Your task to perform on an android device: toggle location history Image 0: 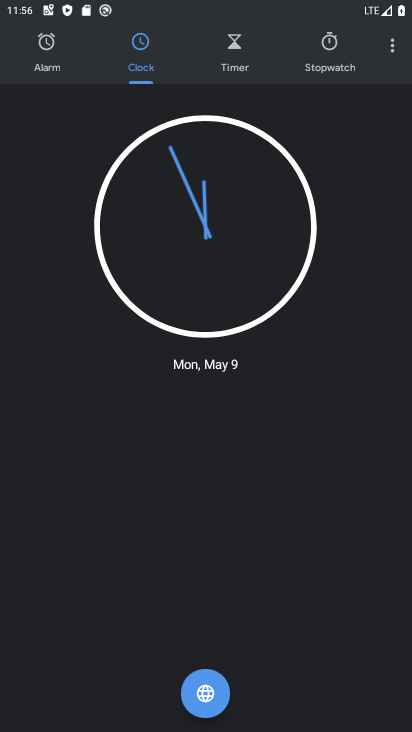
Step 0: press home button
Your task to perform on an android device: toggle location history Image 1: 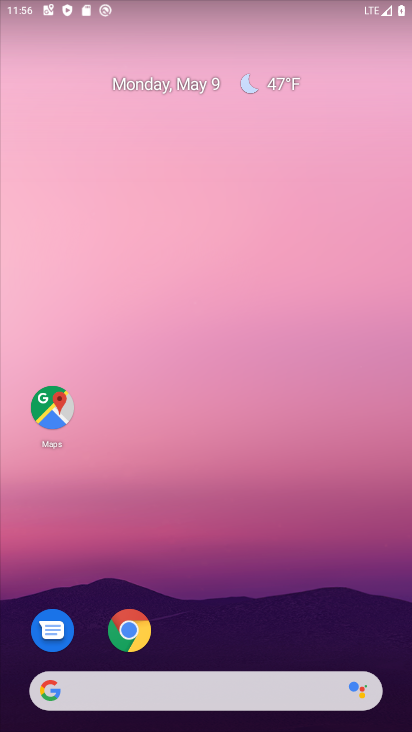
Step 1: drag from (176, 686) to (341, 59)
Your task to perform on an android device: toggle location history Image 2: 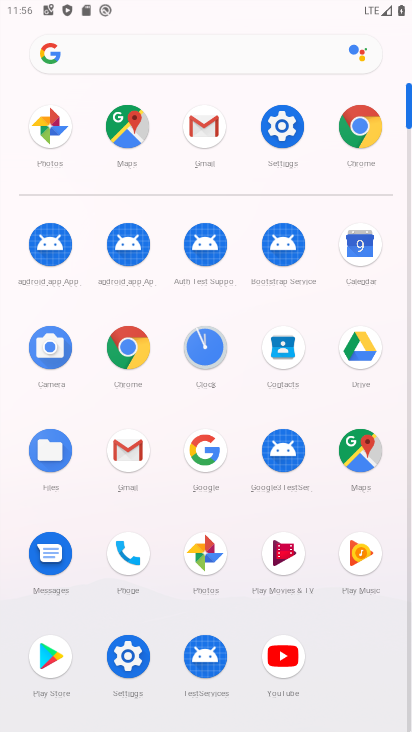
Step 2: click (122, 141)
Your task to perform on an android device: toggle location history Image 3: 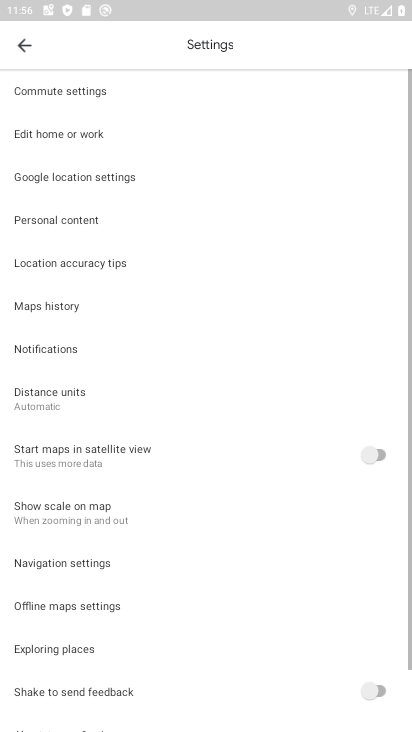
Step 3: click (25, 44)
Your task to perform on an android device: toggle location history Image 4: 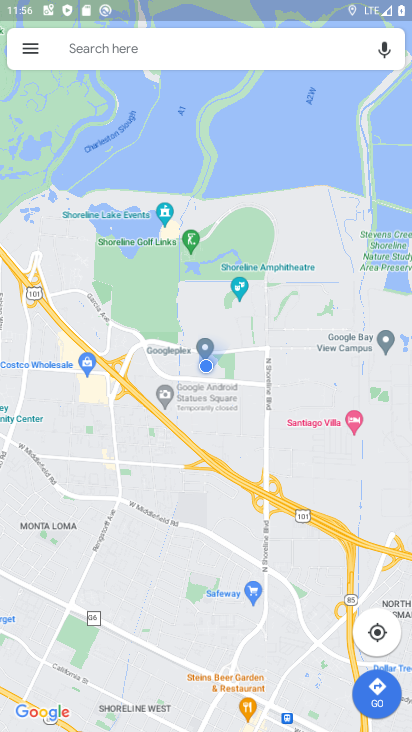
Step 4: click (28, 48)
Your task to perform on an android device: toggle location history Image 5: 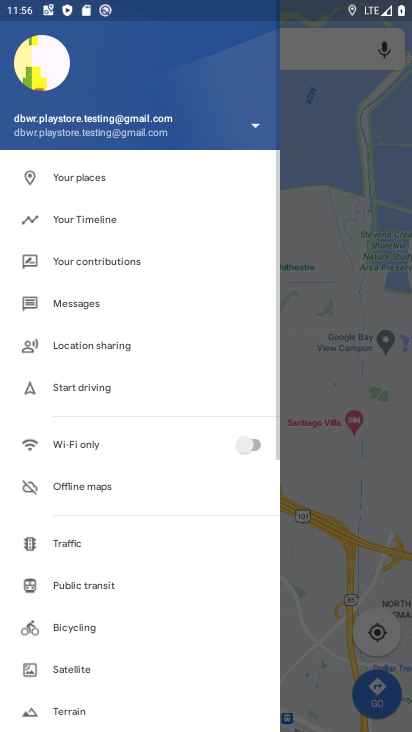
Step 5: click (101, 214)
Your task to perform on an android device: toggle location history Image 6: 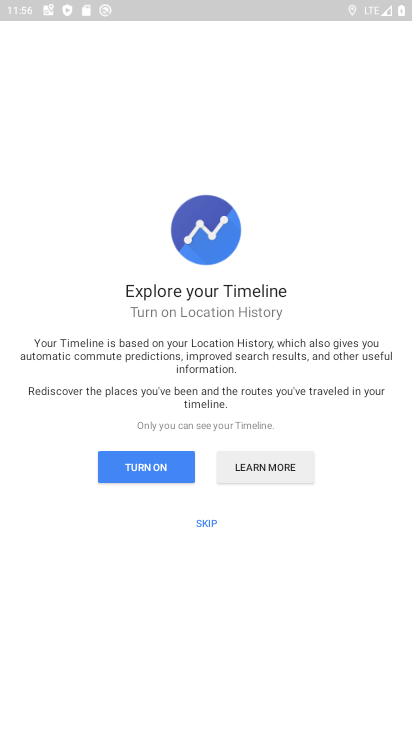
Step 6: click (200, 520)
Your task to perform on an android device: toggle location history Image 7: 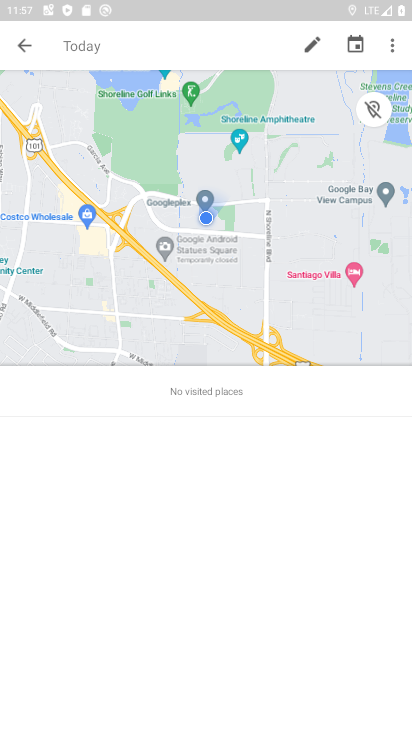
Step 7: click (386, 43)
Your task to perform on an android device: toggle location history Image 8: 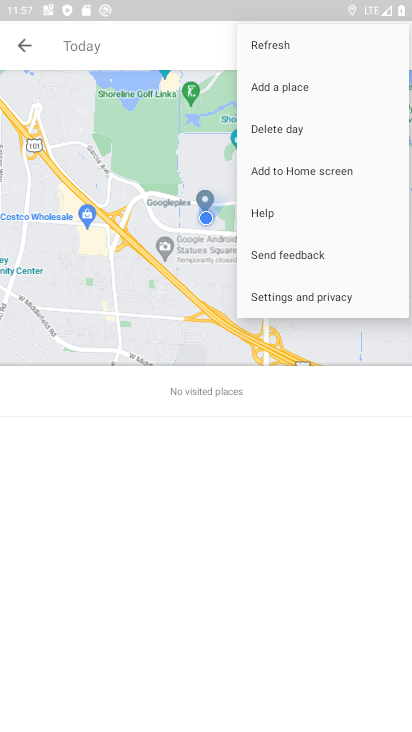
Step 8: click (301, 299)
Your task to perform on an android device: toggle location history Image 9: 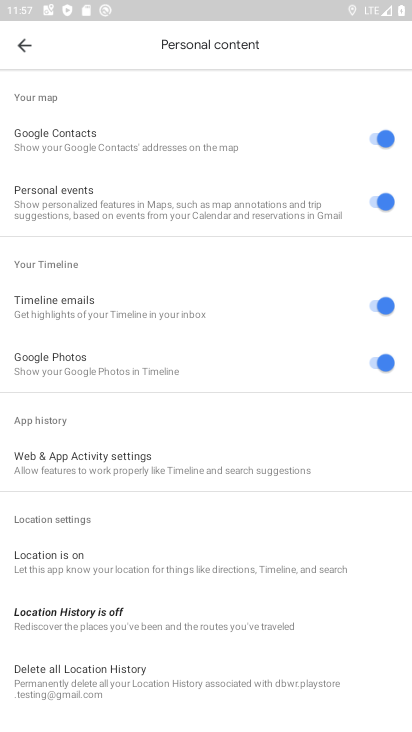
Step 9: drag from (132, 574) to (195, 448)
Your task to perform on an android device: toggle location history Image 10: 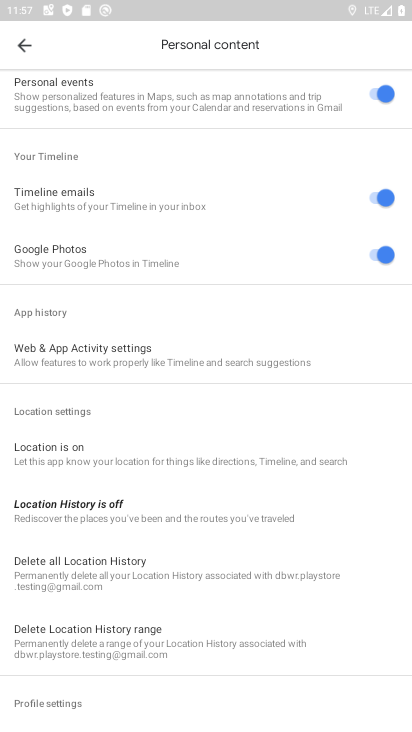
Step 10: click (116, 509)
Your task to perform on an android device: toggle location history Image 11: 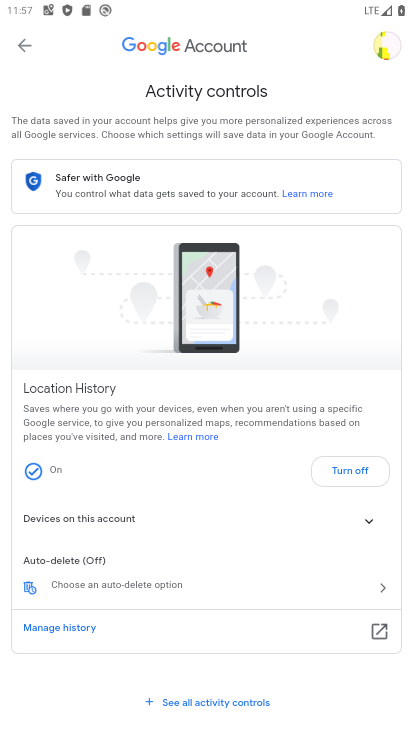
Step 11: click (356, 470)
Your task to perform on an android device: toggle location history Image 12: 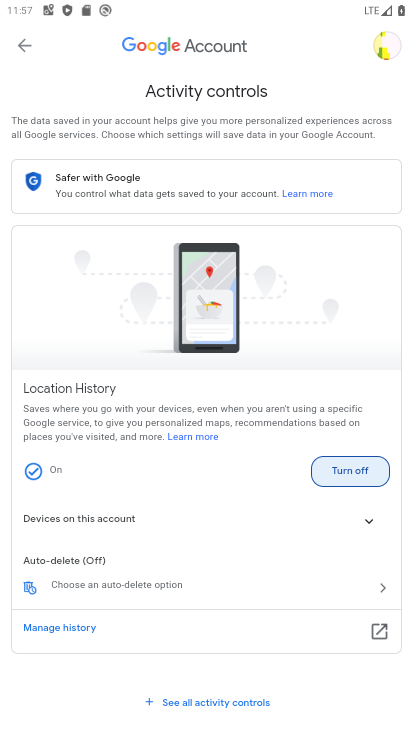
Step 12: click (346, 473)
Your task to perform on an android device: toggle location history Image 13: 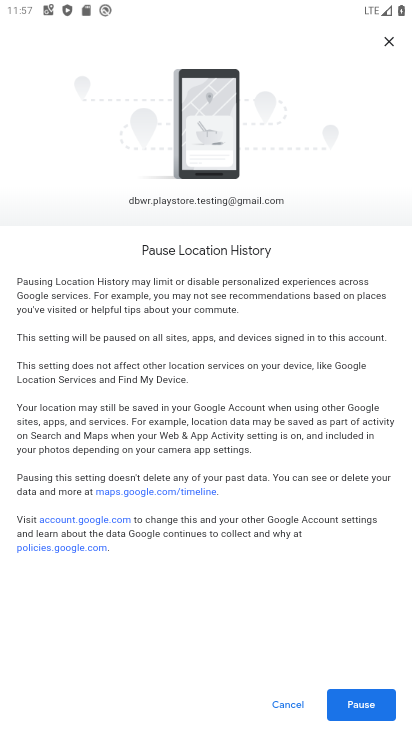
Step 13: click (365, 705)
Your task to perform on an android device: toggle location history Image 14: 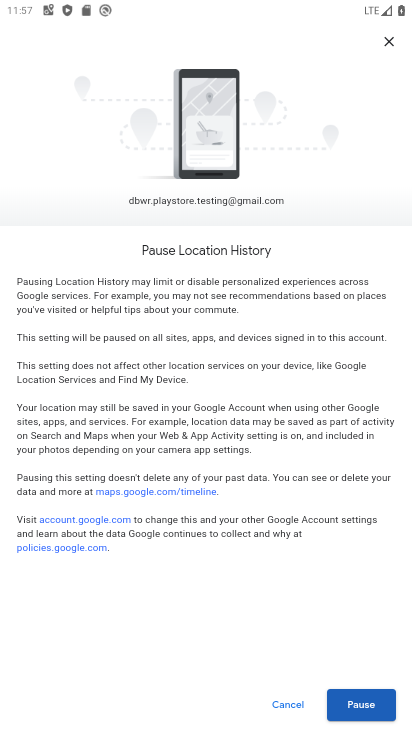
Step 14: click (363, 709)
Your task to perform on an android device: toggle location history Image 15: 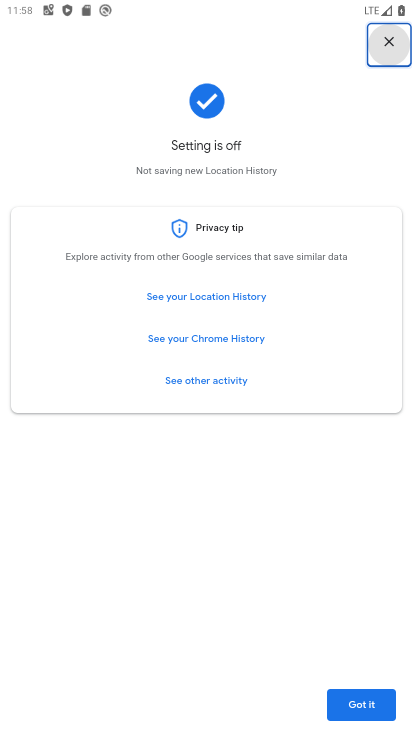
Step 15: task complete